Your task to perform on an android device: add a label to a message in the gmail app Image 0: 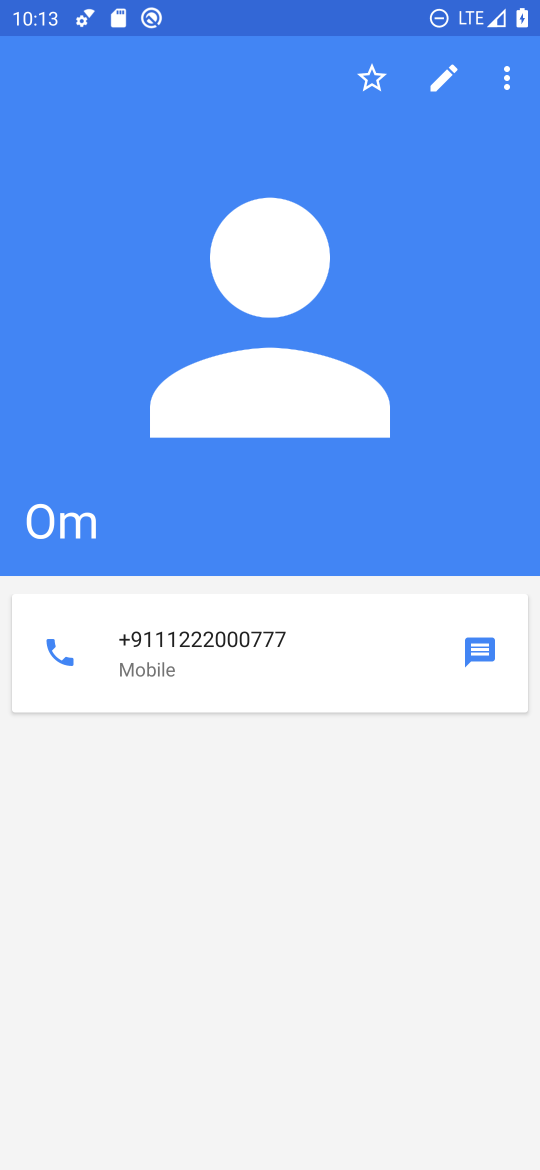
Step 0: press home button
Your task to perform on an android device: add a label to a message in the gmail app Image 1: 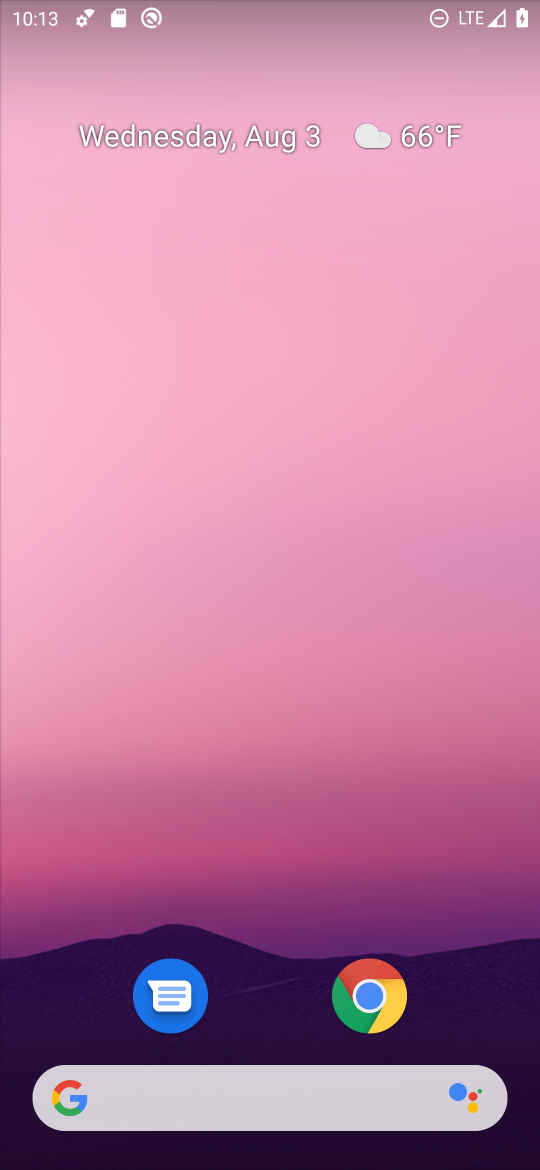
Step 1: drag from (313, 871) to (365, 8)
Your task to perform on an android device: add a label to a message in the gmail app Image 2: 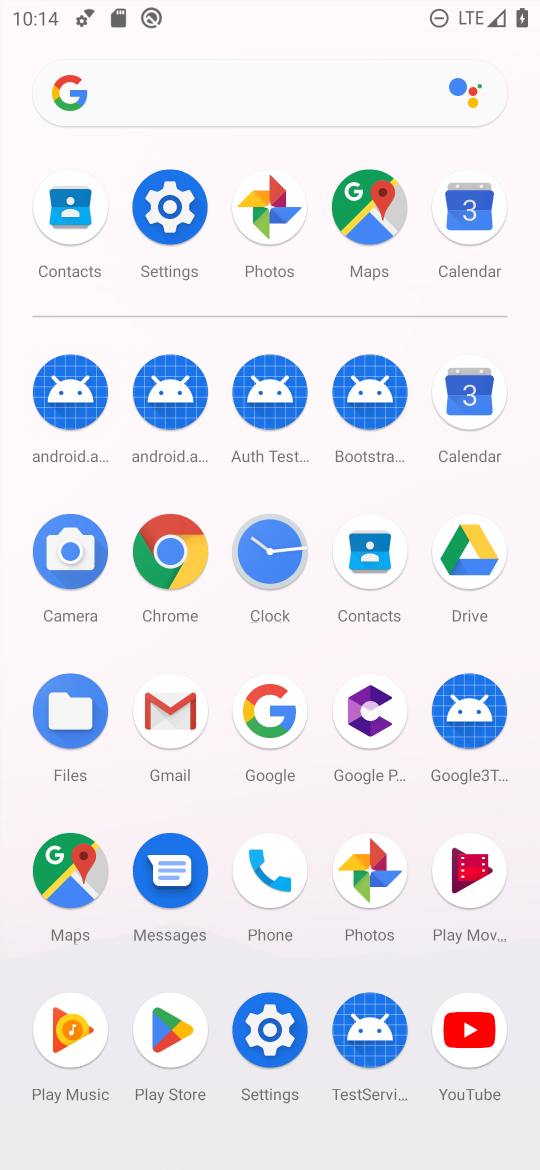
Step 2: click (177, 698)
Your task to perform on an android device: add a label to a message in the gmail app Image 3: 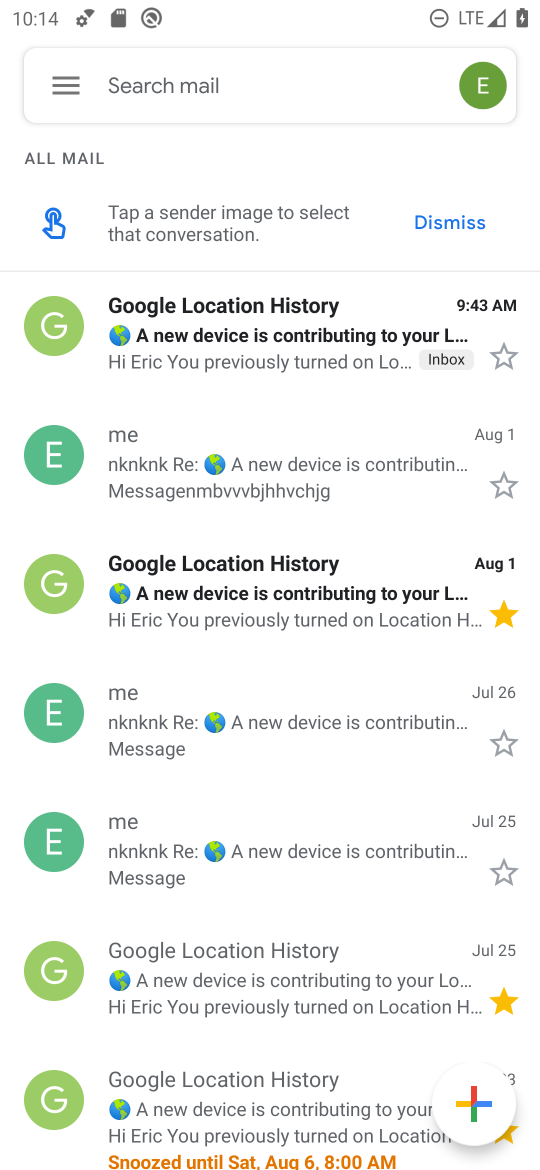
Step 3: click (310, 478)
Your task to perform on an android device: add a label to a message in the gmail app Image 4: 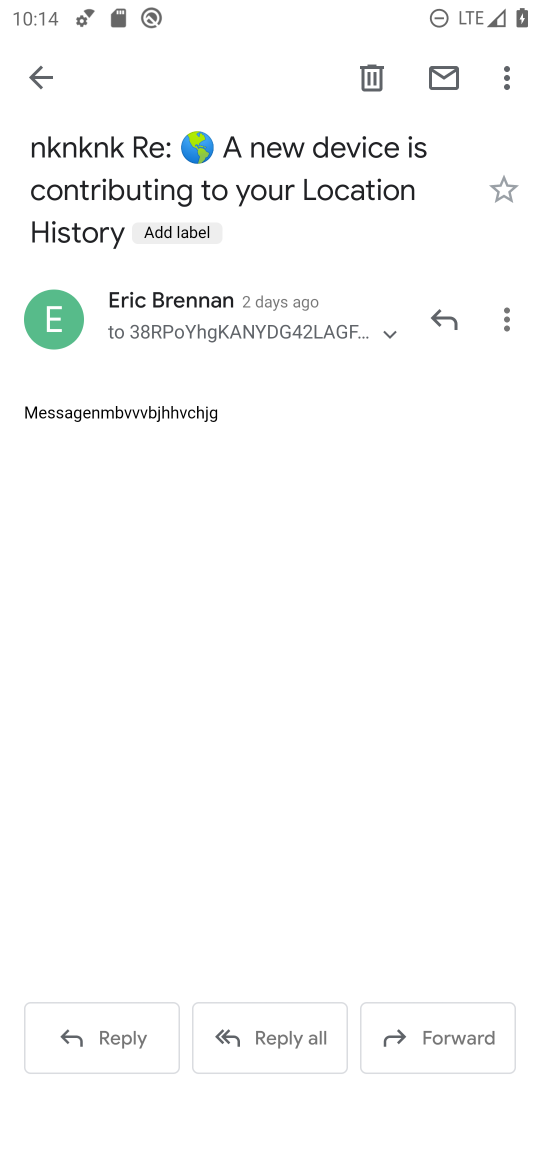
Step 4: click (505, 79)
Your task to perform on an android device: add a label to a message in the gmail app Image 5: 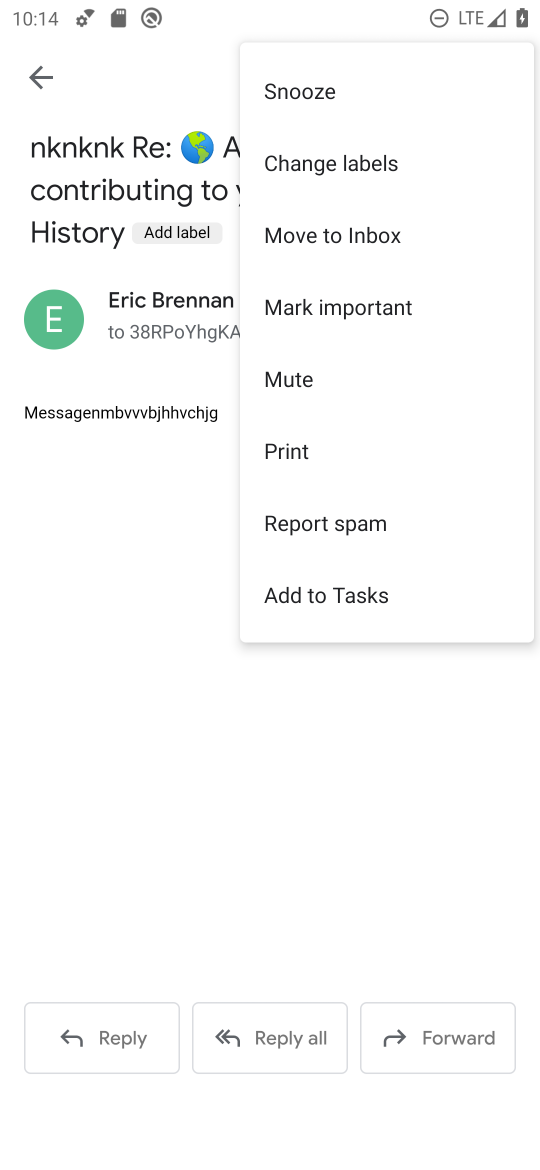
Step 5: click (381, 157)
Your task to perform on an android device: add a label to a message in the gmail app Image 6: 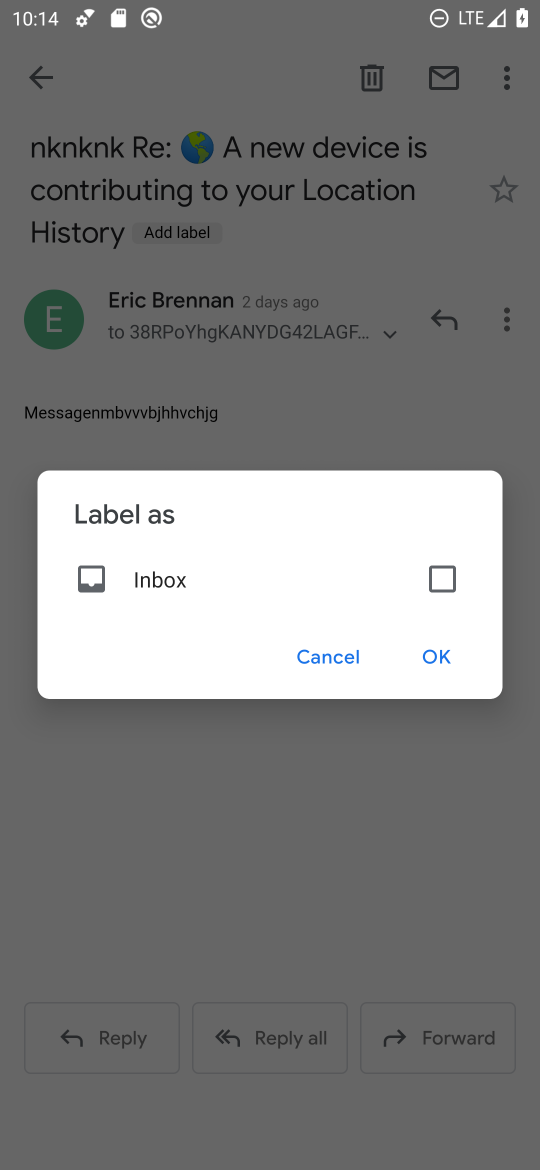
Step 6: click (441, 565)
Your task to perform on an android device: add a label to a message in the gmail app Image 7: 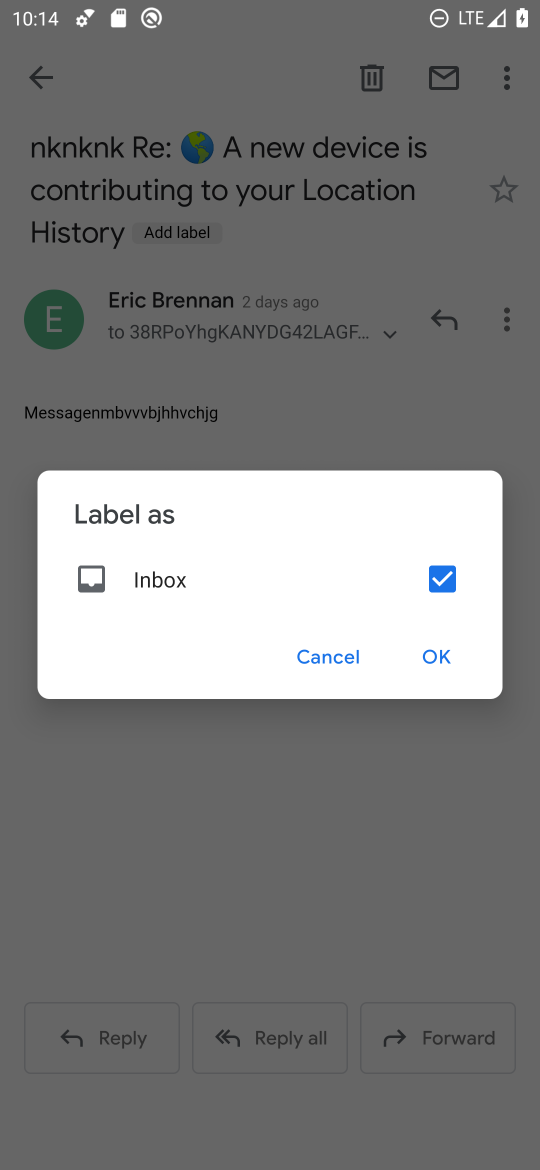
Step 7: click (436, 645)
Your task to perform on an android device: add a label to a message in the gmail app Image 8: 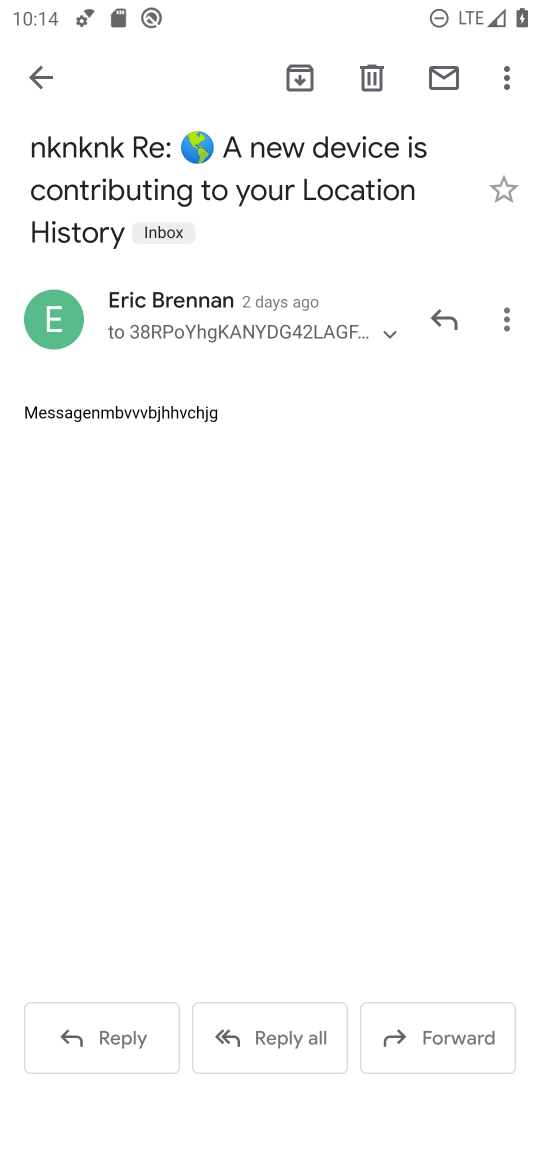
Step 8: task complete